Your task to perform on an android device: Is it going to rain today? Image 0: 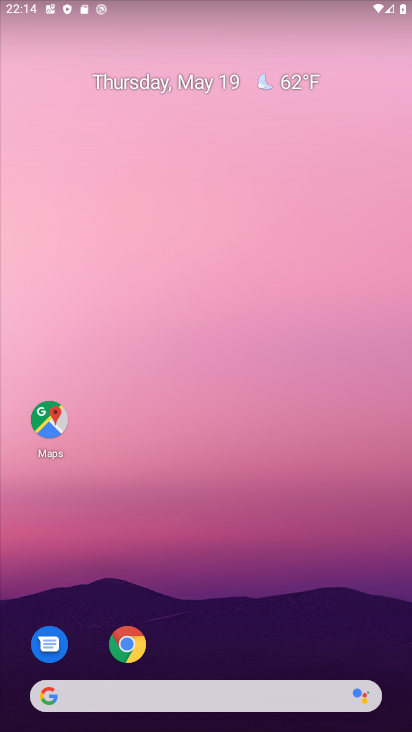
Step 0: drag from (4, 240) to (343, 374)
Your task to perform on an android device: Is it going to rain today? Image 1: 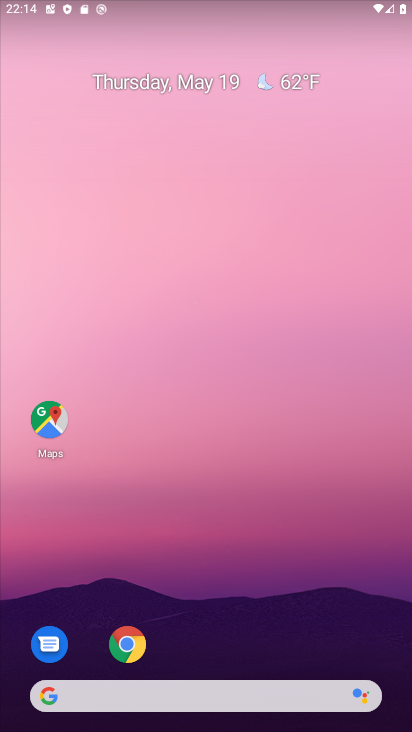
Step 1: drag from (33, 273) to (411, 456)
Your task to perform on an android device: Is it going to rain today? Image 2: 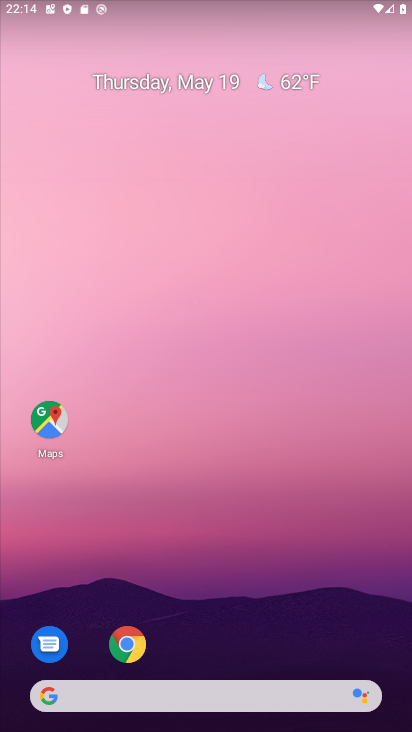
Step 2: drag from (29, 273) to (366, 442)
Your task to perform on an android device: Is it going to rain today? Image 3: 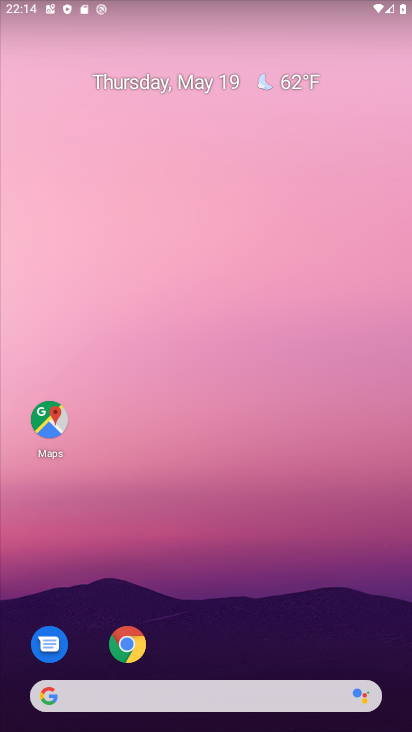
Step 3: drag from (0, 231) to (12, 395)
Your task to perform on an android device: Is it going to rain today? Image 4: 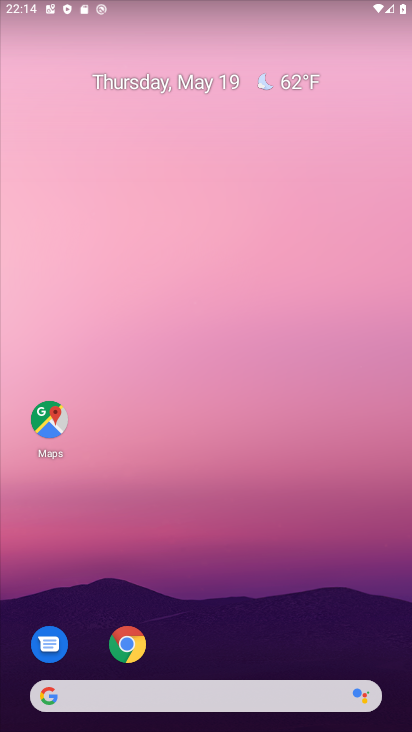
Step 4: drag from (19, 289) to (409, 373)
Your task to perform on an android device: Is it going to rain today? Image 5: 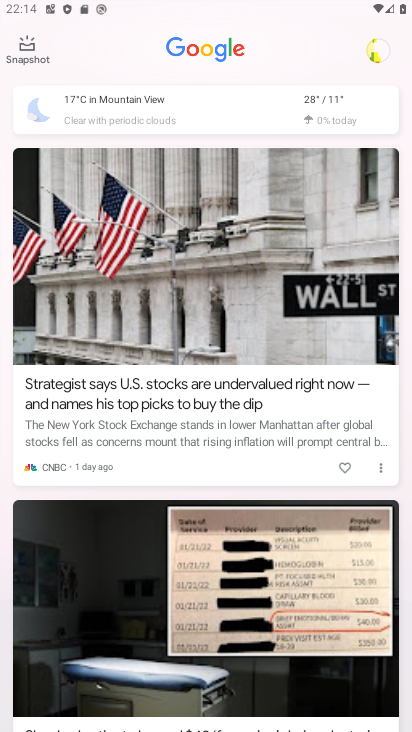
Step 5: drag from (17, 238) to (389, 648)
Your task to perform on an android device: Is it going to rain today? Image 6: 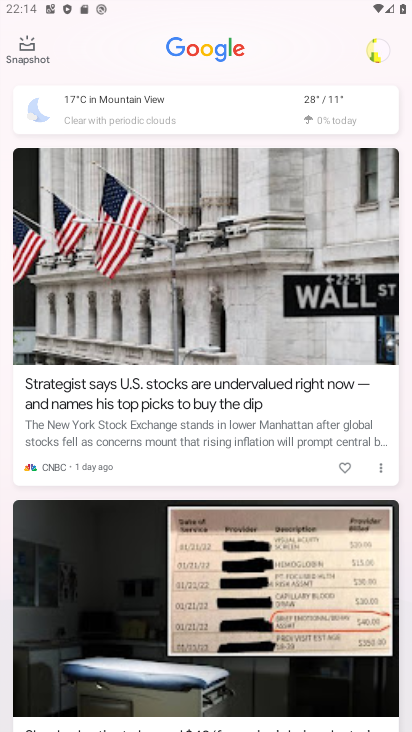
Step 6: click (171, 110)
Your task to perform on an android device: Is it going to rain today? Image 7: 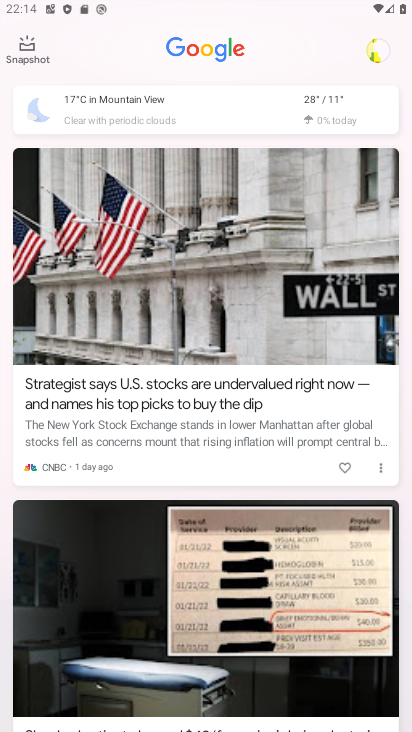
Step 7: click (171, 110)
Your task to perform on an android device: Is it going to rain today? Image 8: 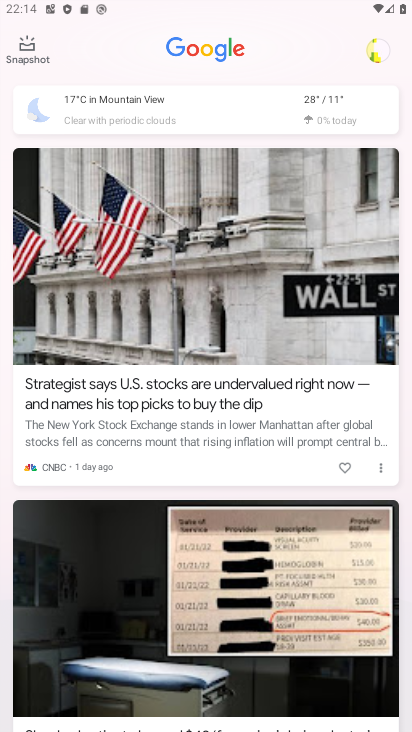
Step 8: click (171, 110)
Your task to perform on an android device: Is it going to rain today? Image 9: 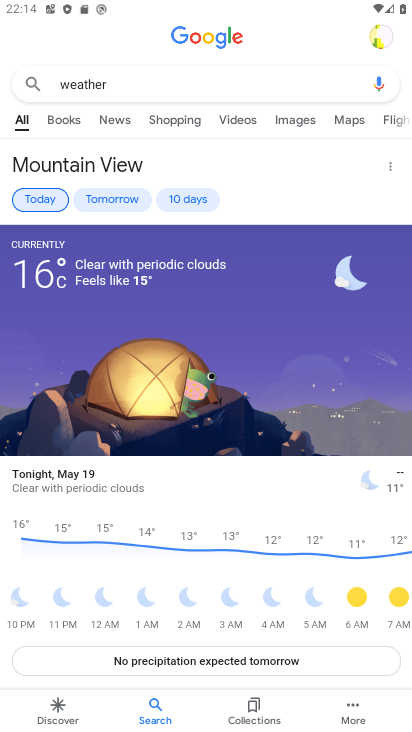
Step 9: drag from (117, 367) to (83, 181)
Your task to perform on an android device: Is it going to rain today? Image 10: 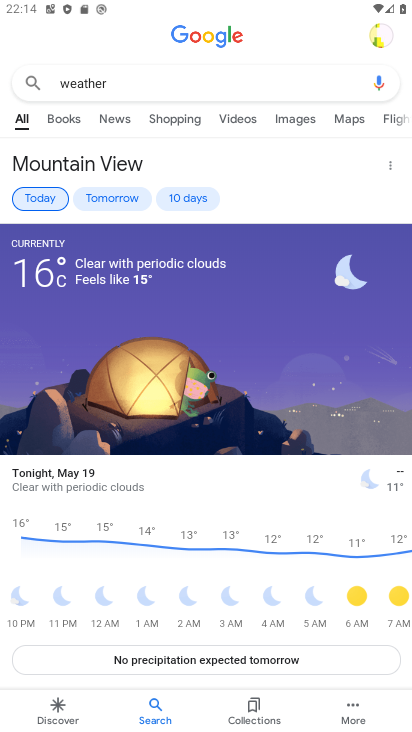
Step 10: drag from (106, 433) to (91, 185)
Your task to perform on an android device: Is it going to rain today? Image 11: 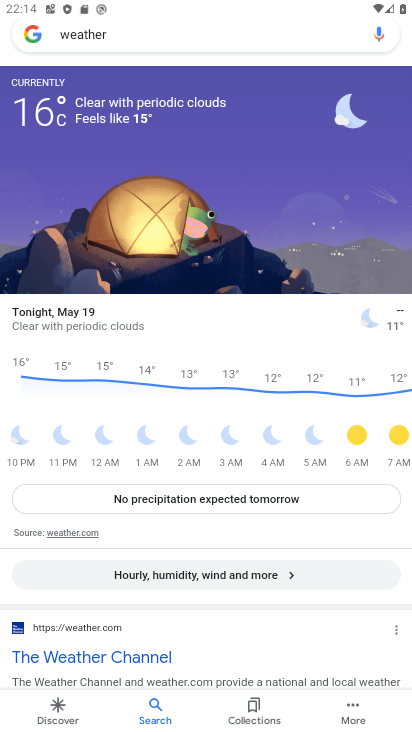
Step 11: drag from (128, 462) to (145, 212)
Your task to perform on an android device: Is it going to rain today? Image 12: 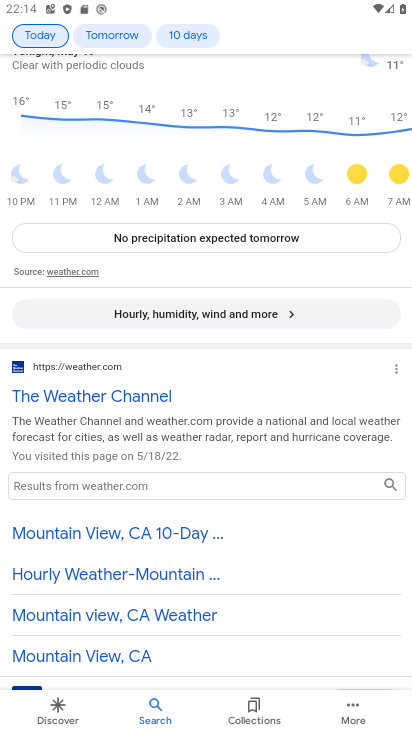
Step 12: drag from (140, 485) to (154, 175)
Your task to perform on an android device: Is it going to rain today? Image 13: 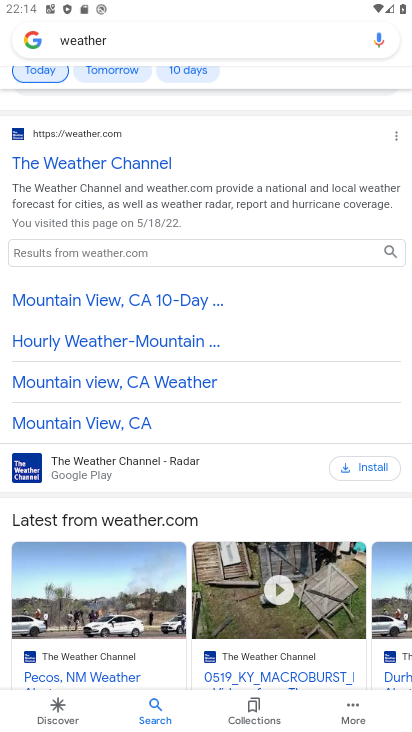
Step 13: drag from (185, 484) to (185, 178)
Your task to perform on an android device: Is it going to rain today? Image 14: 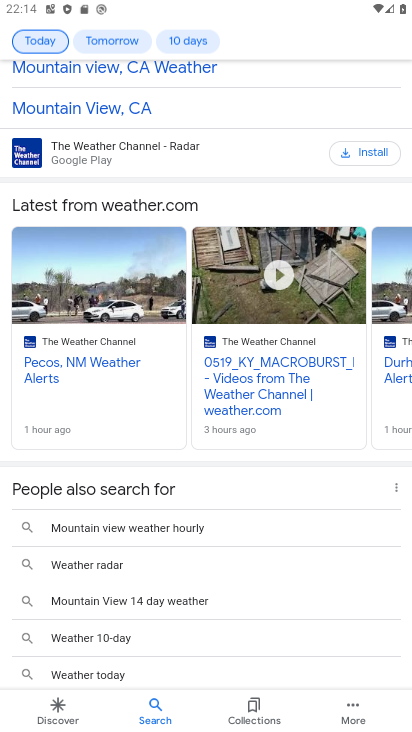
Step 14: drag from (170, 476) to (160, 174)
Your task to perform on an android device: Is it going to rain today? Image 15: 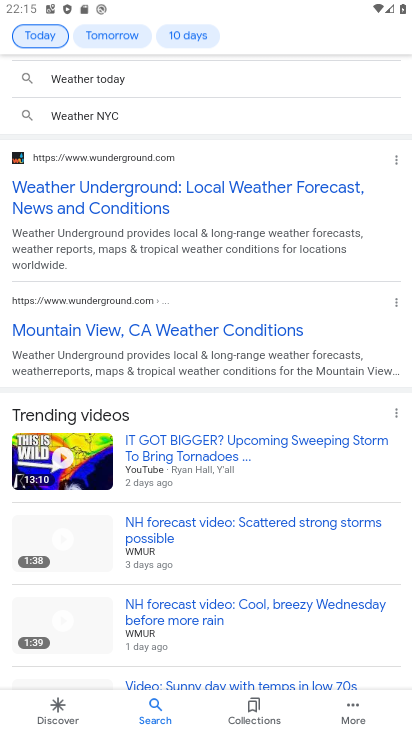
Step 15: drag from (144, 512) to (148, 221)
Your task to perform on an android device: Is it going to rain today? Image 16: 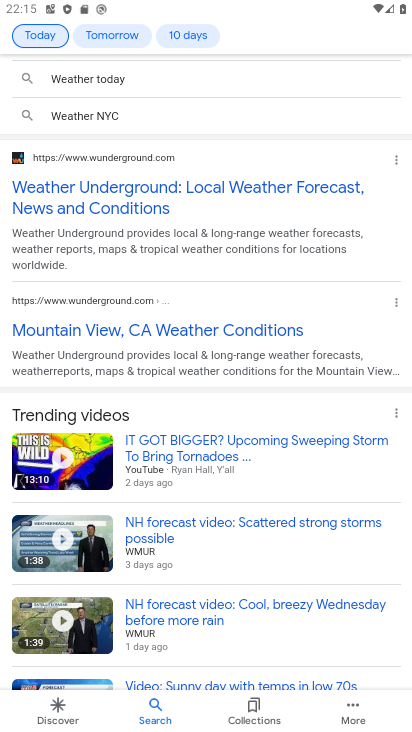
Step 16: drag from (211, 514) to (211, 228)
Your task to perform on an android device: Is it going to rain today? Image 17: 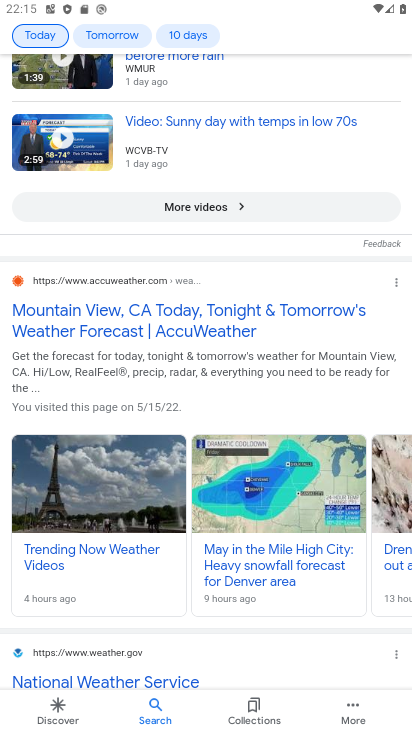
Step 17: drag from (195, 512) to (183, 271)
Your task to perform on an android device: Is it going to rain today? Image 18: 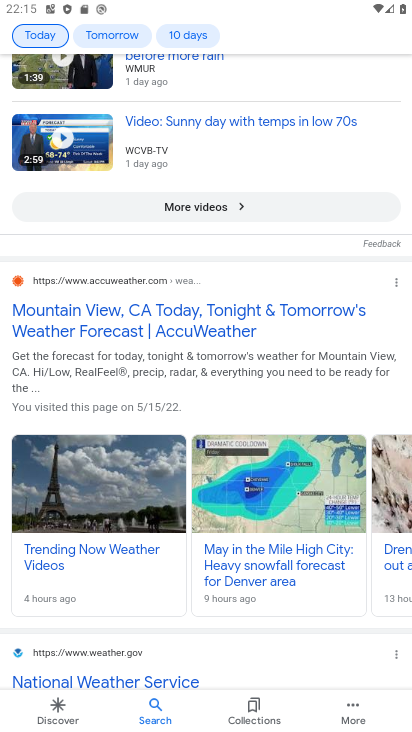
Step 18: drag from (179, 496) to (179, 314)
Your task to perform on an android device: Is it going to rain today? Image 19: 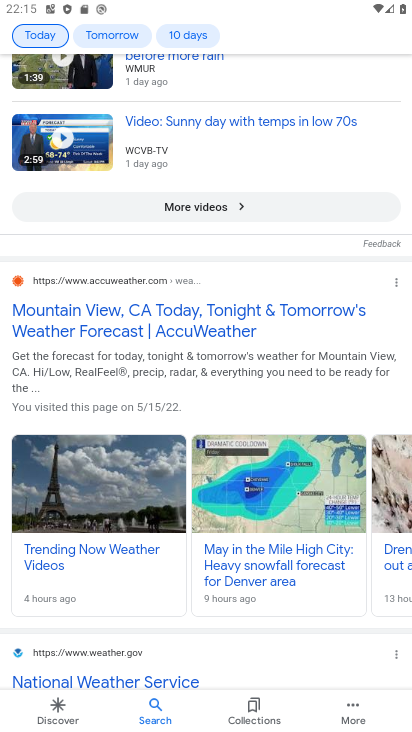
Step 19: drag from (176, 551) to (176, 290)
Your task to perform on an android device: Is it going to rain today? Image 20: 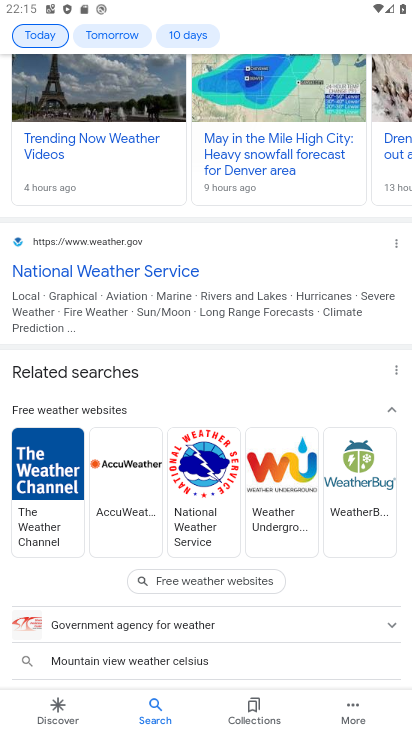
Step 20: drag from (126, 606) to (126, 341)
Your task to perform on an android device: Is it going to rain today? Image 21: 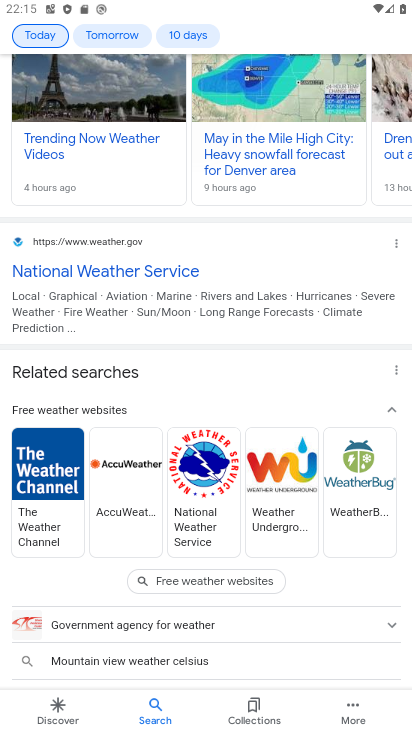
Step 21: drag from (150, 534) to (153, 266)
Your task to perform on an android device: Is it going to rain today? Image 22: 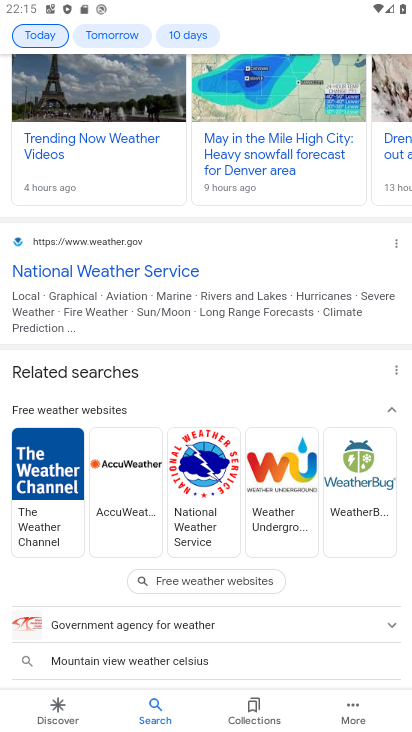
Step 22: click (158, 309)
Your task to perform on an android device: Is it going to rain today? Image 23: 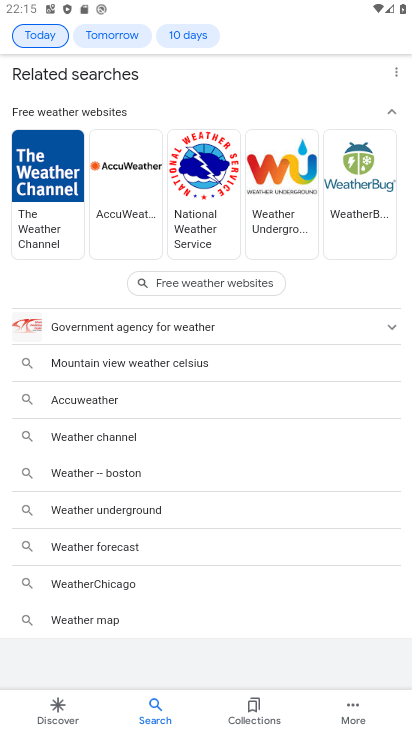
Step 23: task complete